Your task to perform on an android device: toggle translation in the chrome app Image 0: 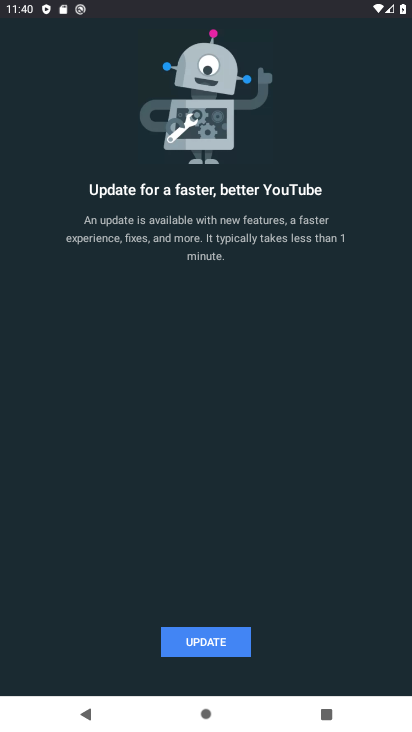
Step 0: press home button
Your task to perform on an android device: toggle translation in the chrome app Image 1: 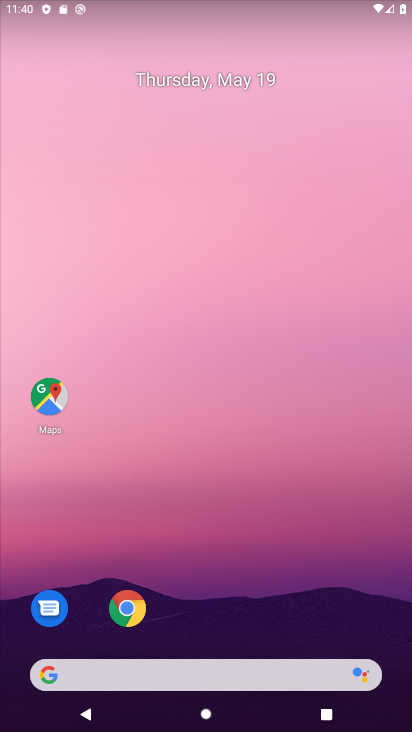
Step 1: drag from (347, 619) to (377, 130)
Your task to perform on an android device: toggle translation in the chrome app Image 2: 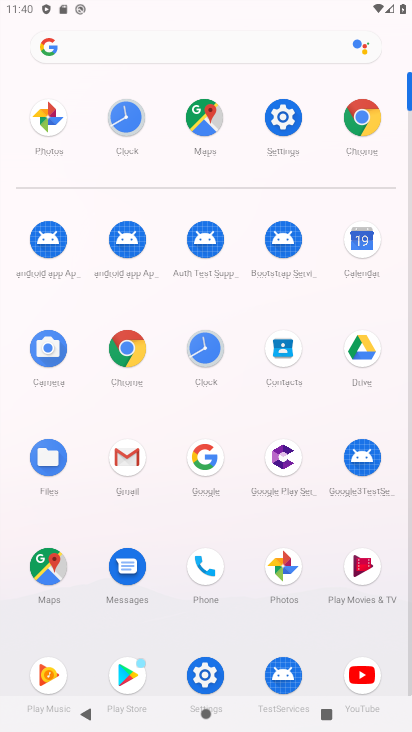
Step 2: click (362, 130)
Your task to perform on an android device: toggle translation in the chrome app Image 3: 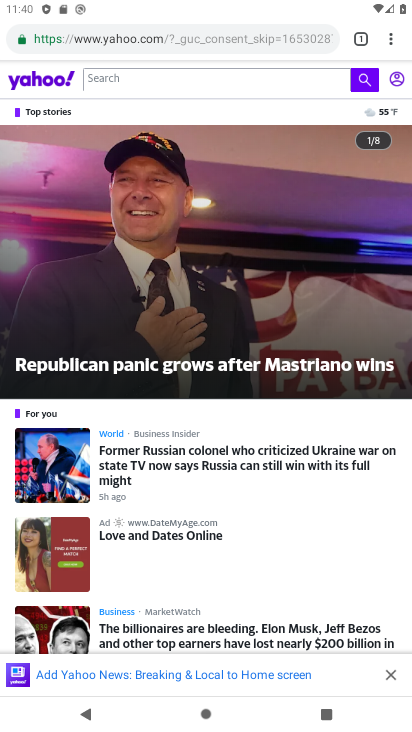
Step 3: click (389, 43)
Your task to perform on an android device: toggle translation in the chrome app Image 4: 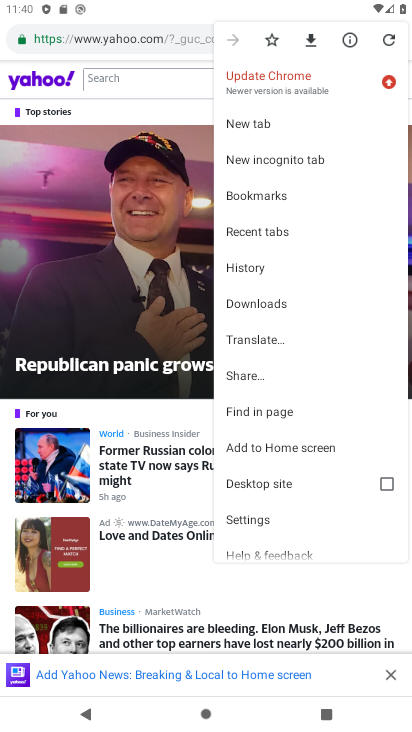
Step 4: click (250, 517)
Your task to perform on an android device: toggle translation in the chrome app Image 5: 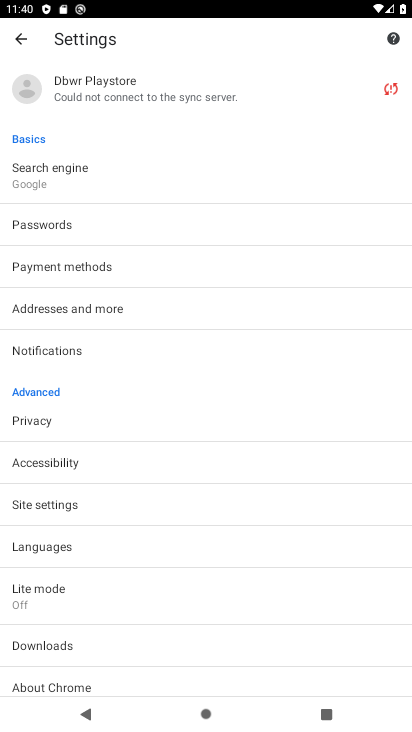
Step 5: click (177, 553)
Your task to perform on an android device: toggle translation in the chrome app Image 6: 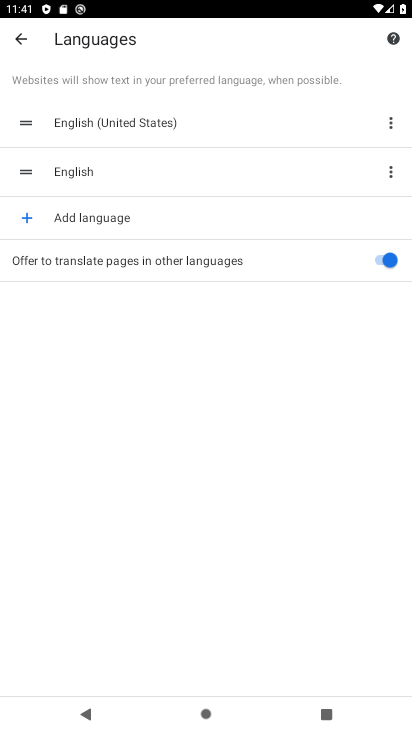
Step 6: click (384, 259)
Your task to perform on an android device: toggle translation in the chrome app Image 7: 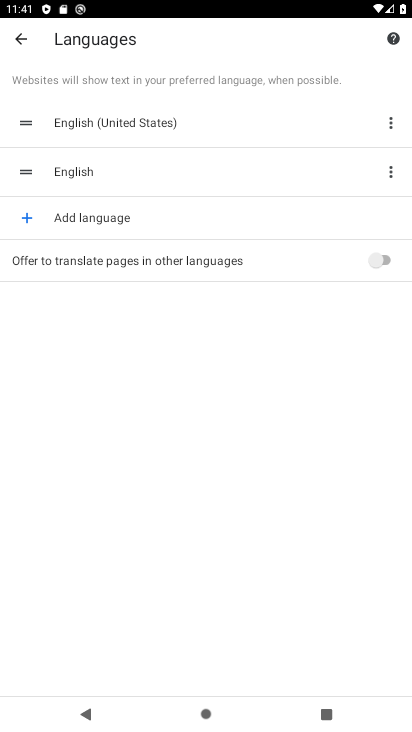
Step 7: task complete